Your task to perform on an android device: Open Chrome and go to settings Image 0: 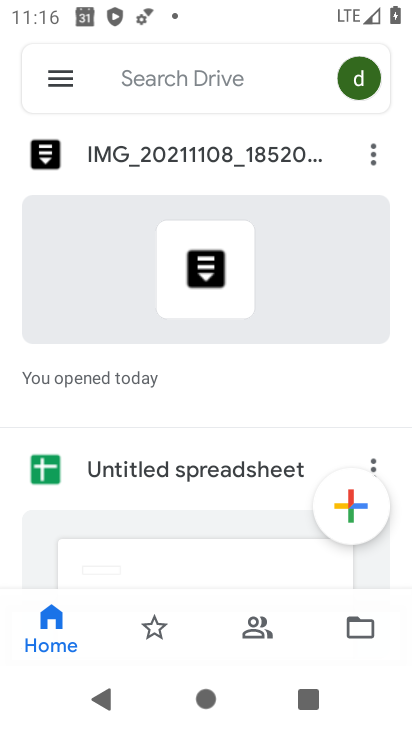
Step 0: press home button
Your task to perform on an android device: Open Chrome and go to settings Image 1: 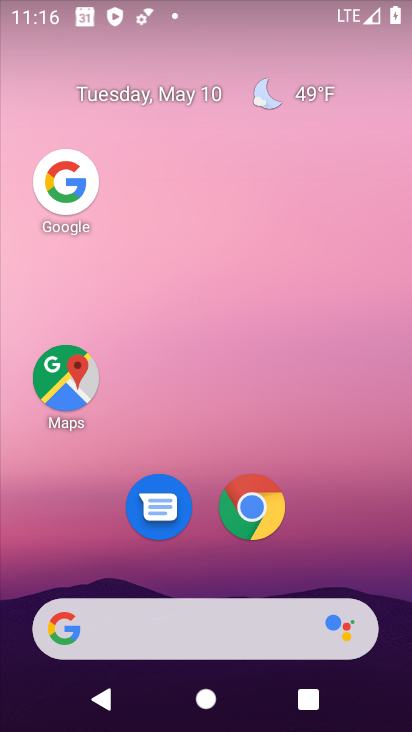
Step 1: click (276, 507)
Your task to perform on an android device: Open Chrome and go to settings Image 2: 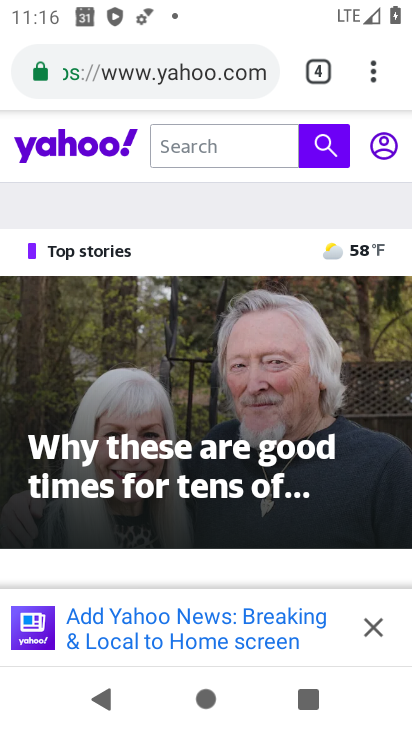
Step 2: click (377, 71)
Your task to perform on an android device: Open Chrome and go to settings Image 3: 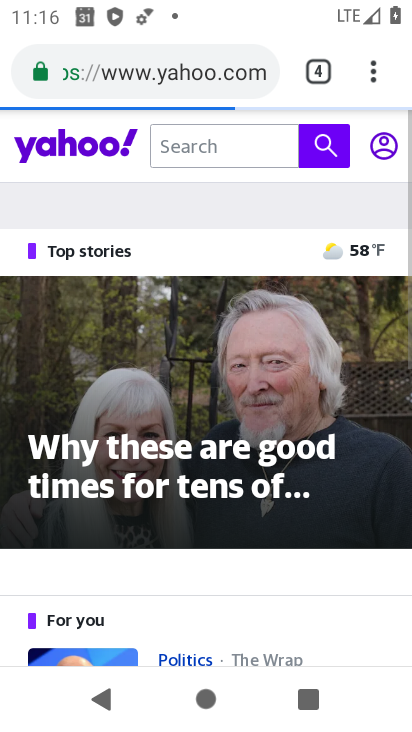
Step 3: click (377, 73)
Your task to perform on an android device: Open Chrome and go to settings Image 4: 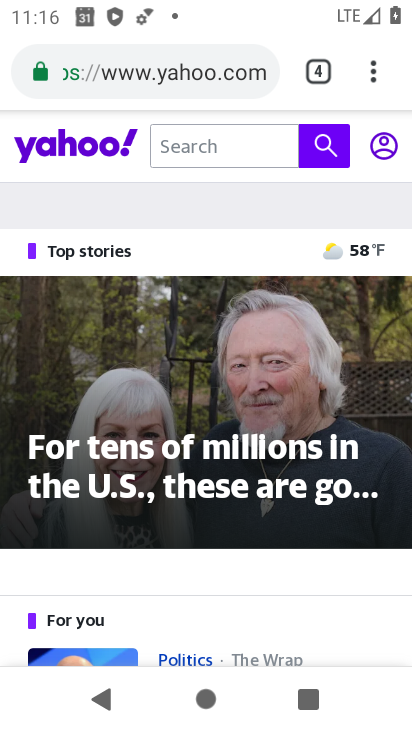
Step 4: click (374, 58)
Your task to perform on an android device: Open Chrome and go to settings Image 5: 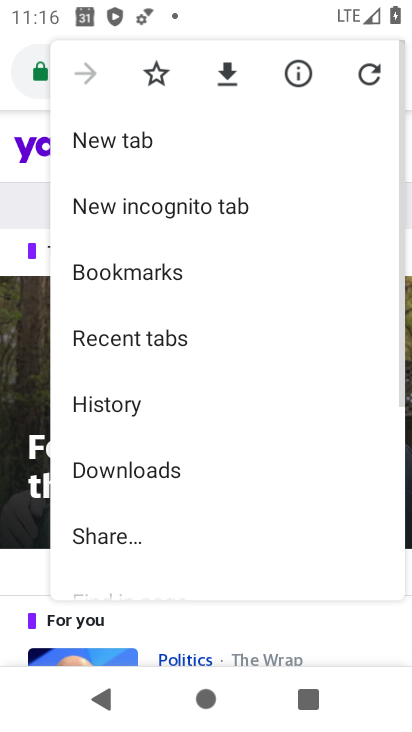
Step 5: drag from (212, 493) to (261, 177)
Your task to perform on an android device: Open Chrome and go to settings Image 6: 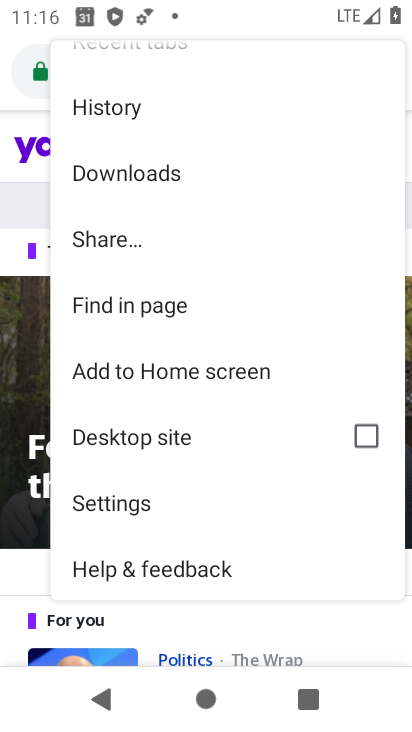
Step 6: click (156, 508)
Your task to perform on an android device: Open Chrome and go to settings Image 7: 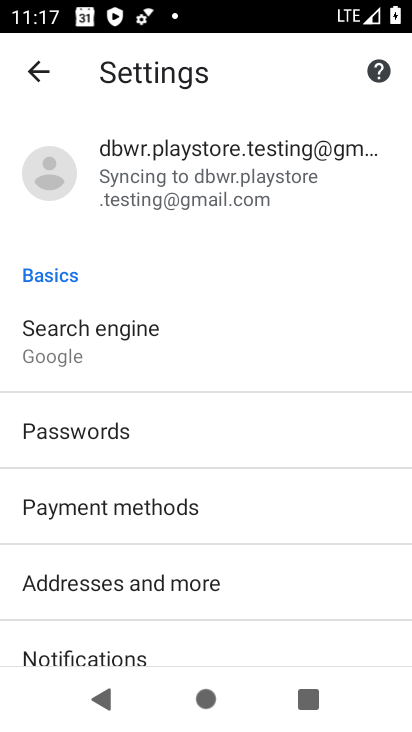
Step 7: task complete